Your task to perform on an android device: set the timer Image 0: 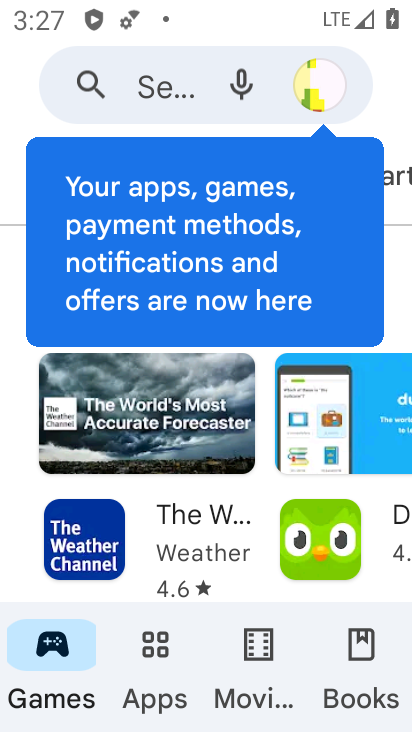
Step 0: press home button
Your task to perform on an android device: set the timer Image 1: 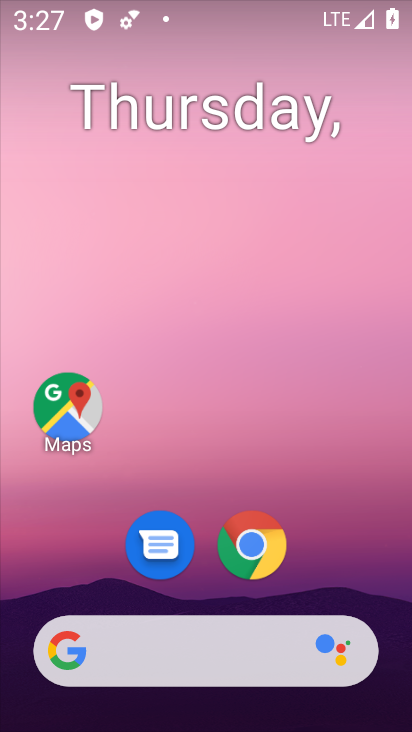
Step 1: drag from (348, 567) to (346, 116)
Your task to perform on an android device: set the timer Image 2: 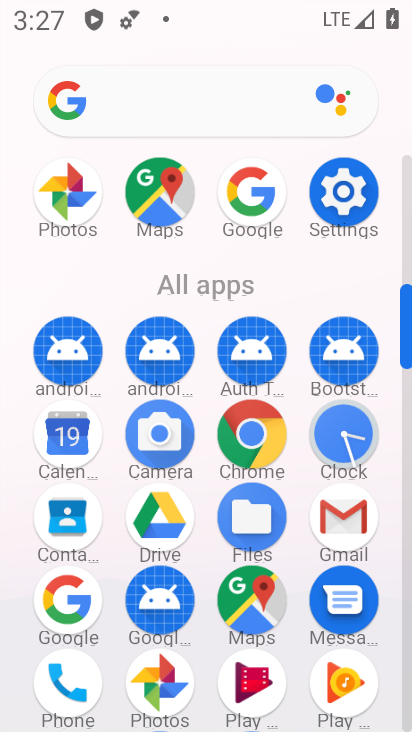
Step 2: click (358, 433)
Your task to perform on an android device: set the timer Image 3: 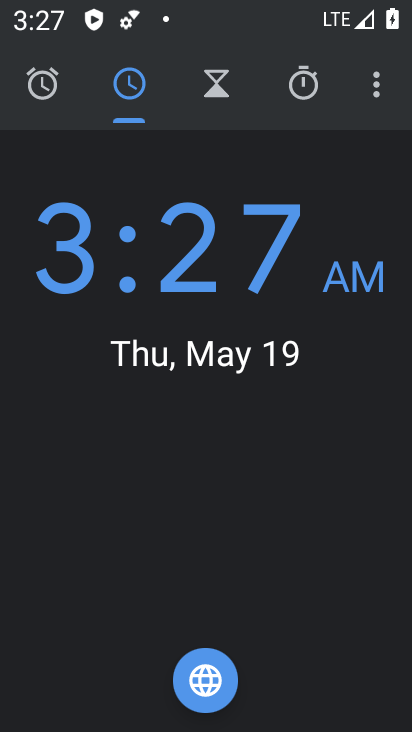
Step 3: click (222, 94)
Your task to perform on an android device: set the timer Image 4: 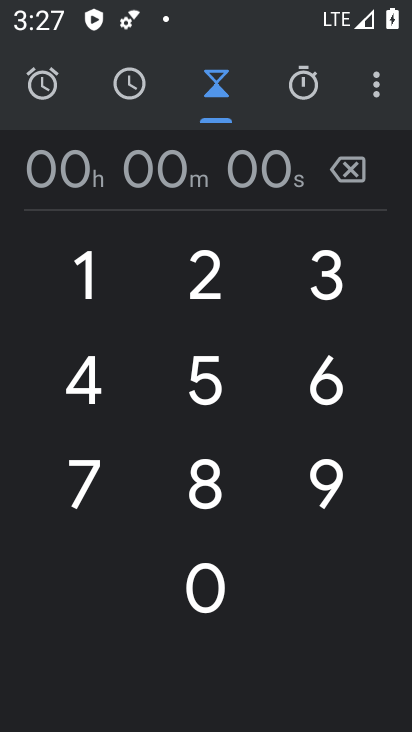
Step 4: click (205, 290)
Your task to perform on an android device: set the timer Image 5: 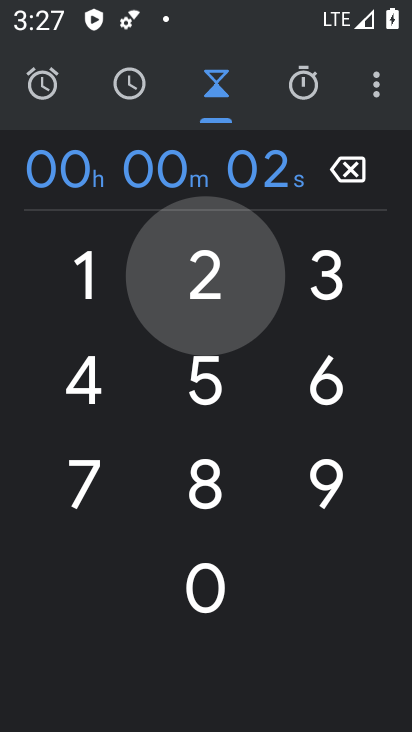
Step 5: click (204, 402)
Your task to perform on an android device: set the timer Image 6: 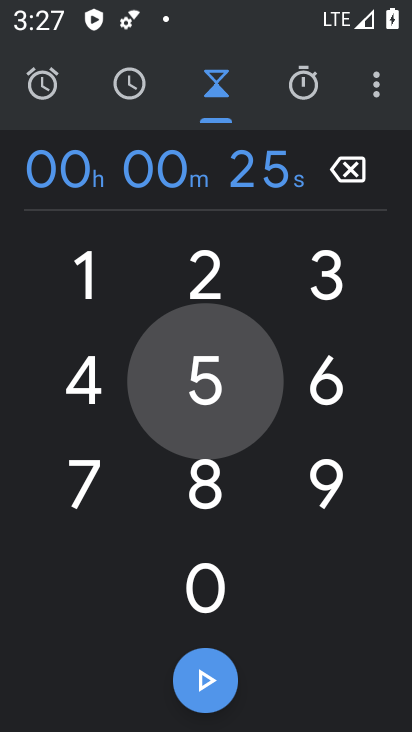
Step 6: click (228, 279)
Your task to perform on an android device: set the timer Image 7: 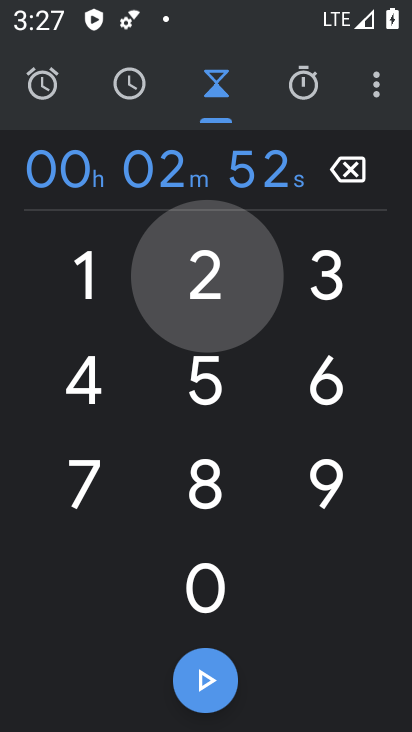
Step 7: click (219, 419)
Your task to perform on an android device: set the timer Image 8: 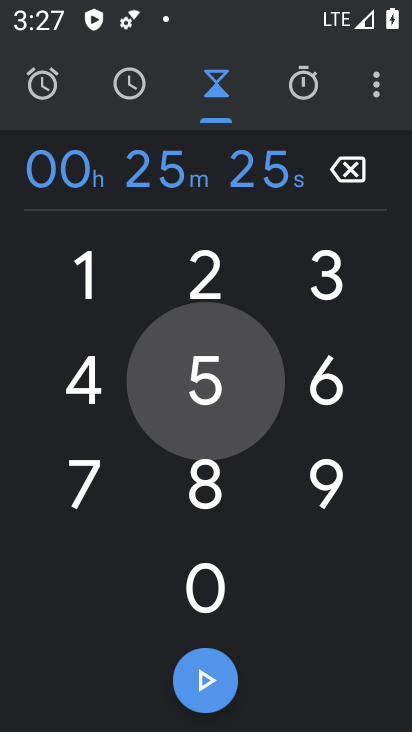
Step 8: click (227, 268)
Your task to perform on an android device: set the timer Image 9: 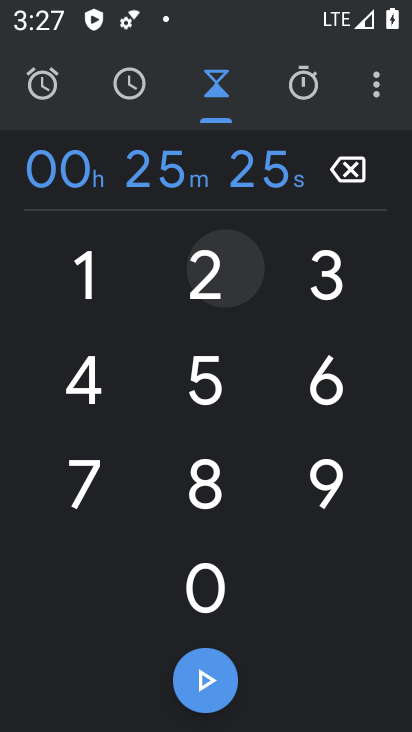
Step 9: click (229, 422)
Your task to perform on an android device: set the timer Image 10: 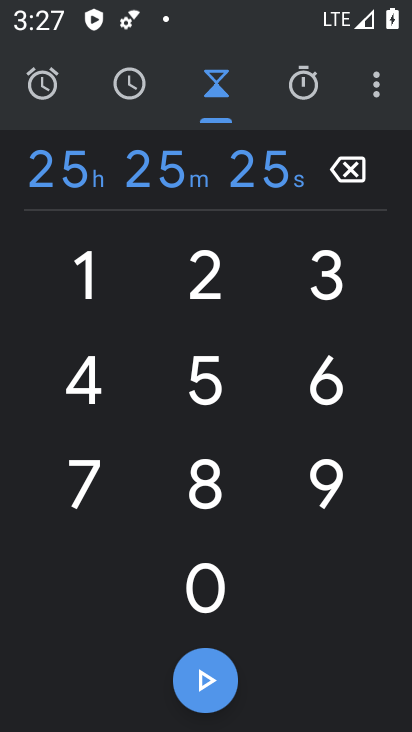
Step 10: click (195, 671)
Your task to perform on an android device: set the timer Image 11: 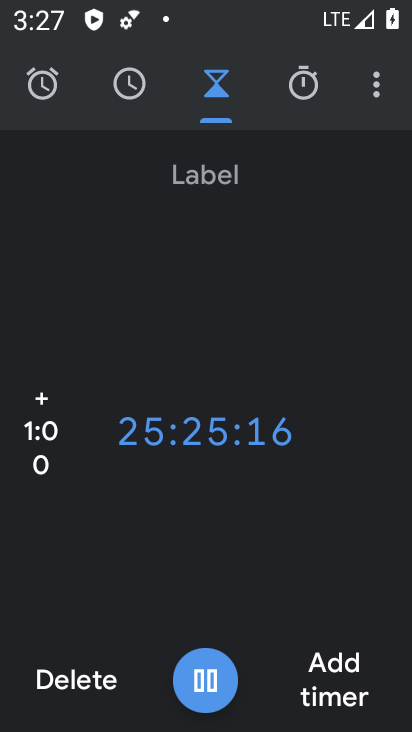
Step 11: task complete